Your task to perform on an android device: change keyboard looks Image 0: 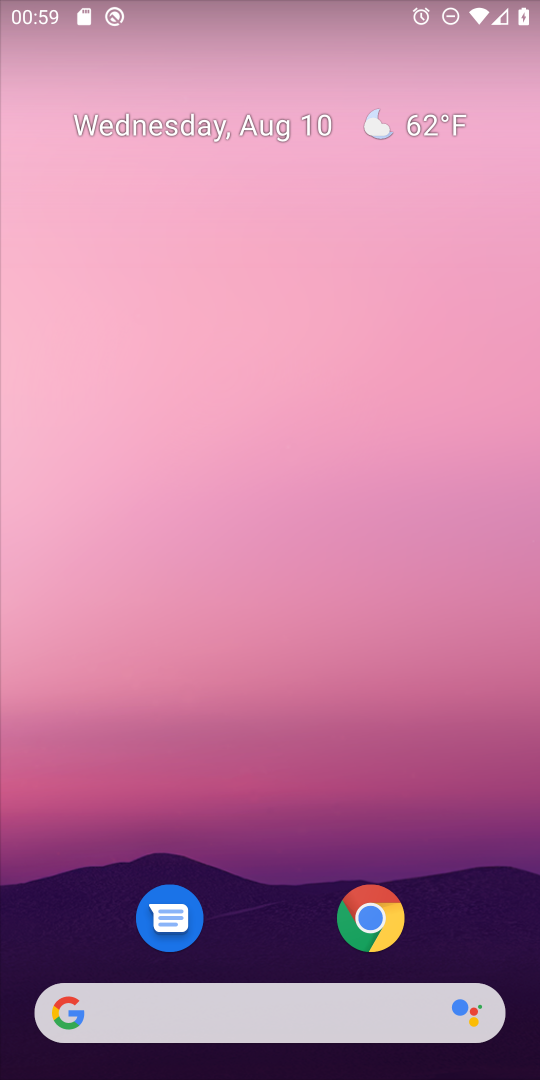
Step 0: drag from (253, 848) to (277, 211)
Your task to perform on an android device: change keyboard looks Image 1: 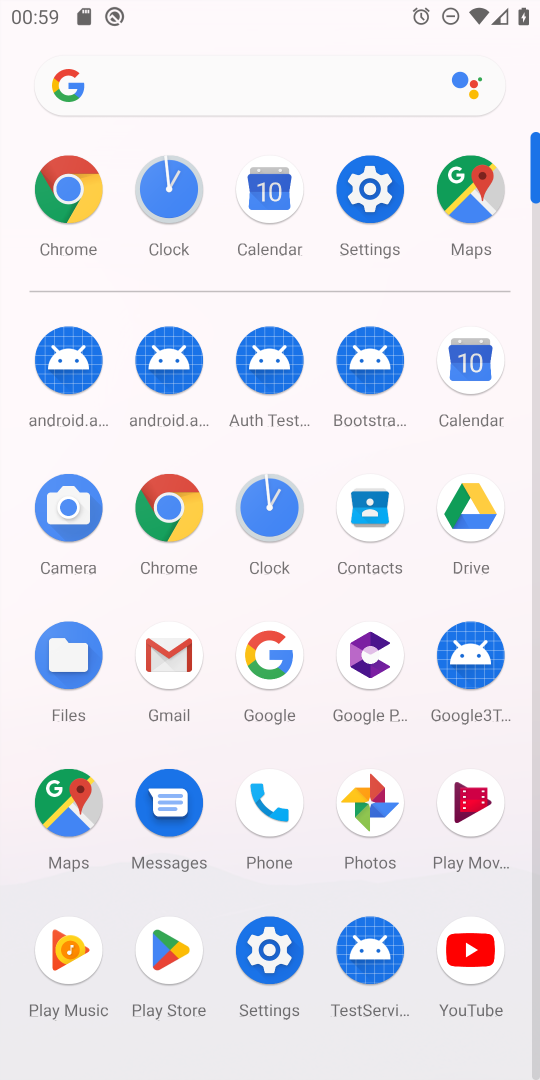
Step 1: click (267, 947)
Your task to perform on an android device: change keyboard looks Image 2: 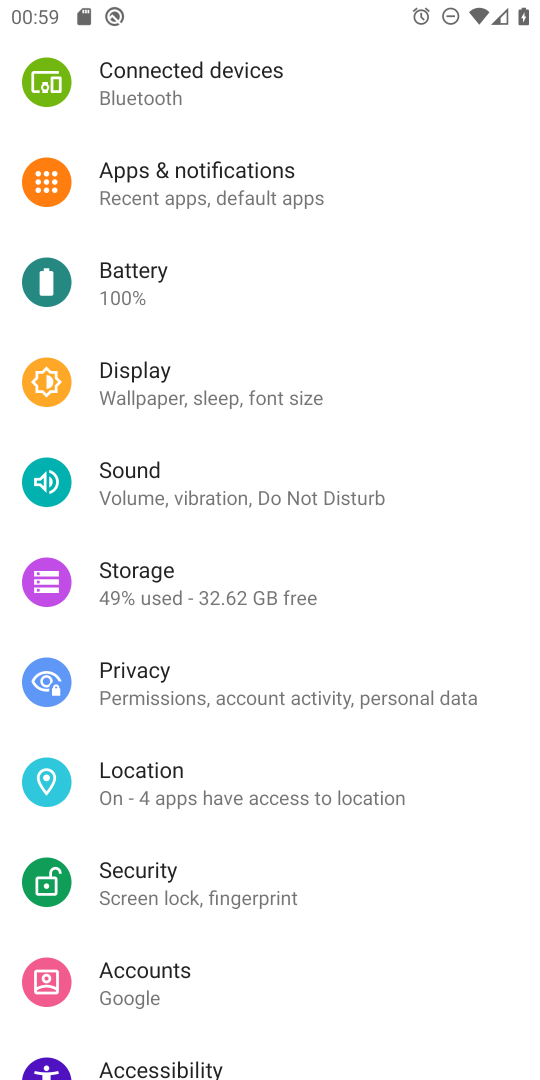
Step 2: drag from (267, 920) to (338, 240)
Your task to perform on an android device: change keyboard looks Image 3: 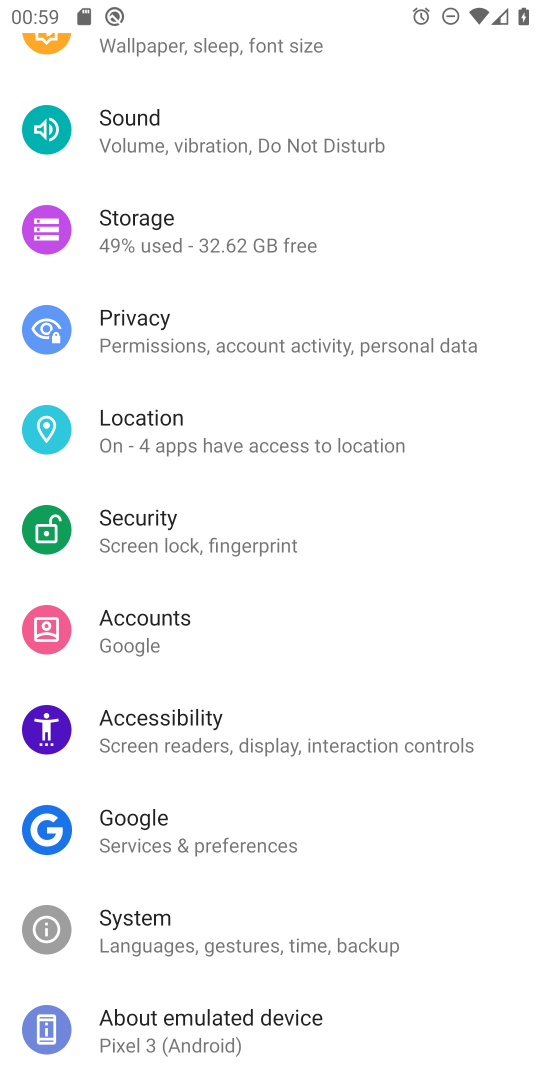
Step 3: click (303, 956)
Your task to perform on an android device: change keyboard looks Image 4: 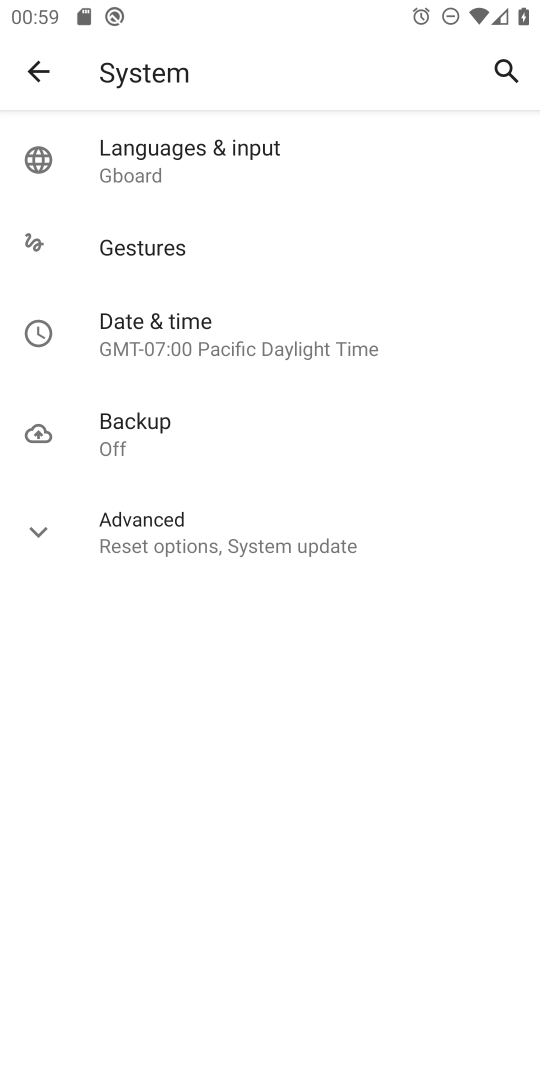
Step 4: click (194, 151)
Your task to perform on an android device: change keyboard looks Image 5: 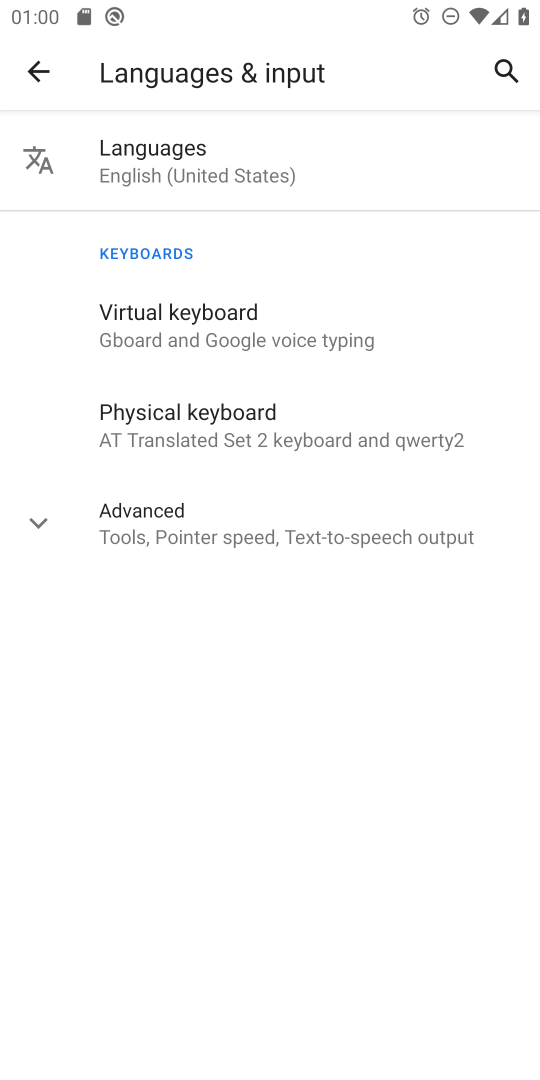
Step 5: click (160, 350)
Your task to perform on an android device: change keyboard looks Image 6: 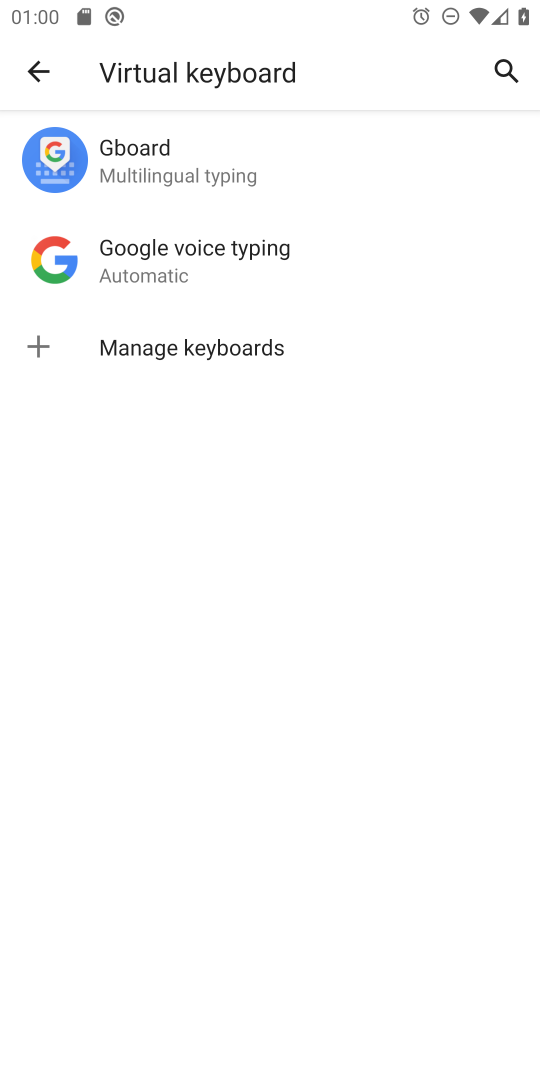
Step 6: click (149, 179)
Your task to perform on an android device: change keyboard looks Image 7: 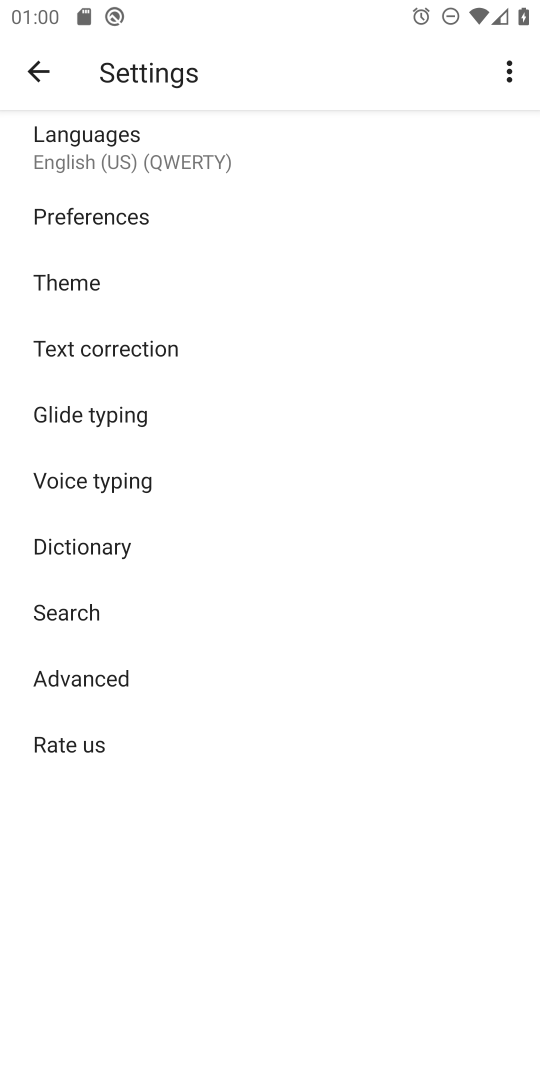
Step 7: click (93, 287)
Your task to perform on an android device: change keyboard looks Image 8: 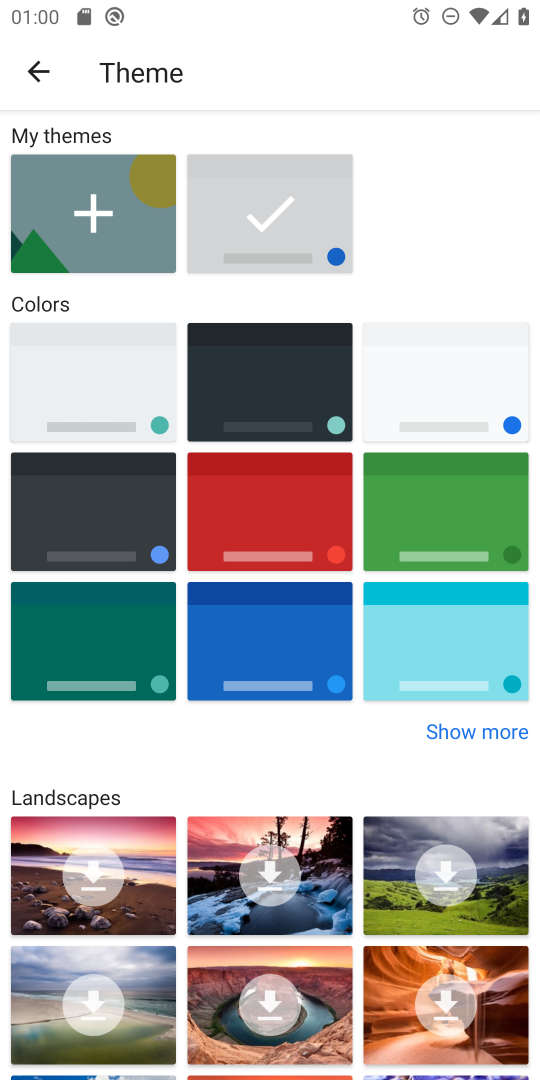
Step 8: click (56, 395)
Your task to perform on an android device: change keyboard looks Image 9: 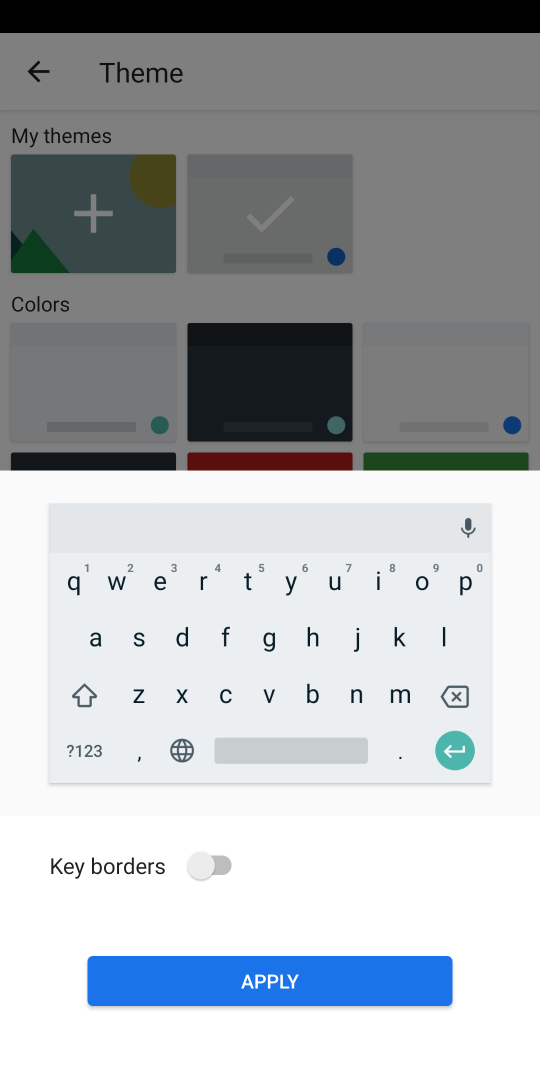
Step 9: click (273, 977)
Your task to perform on an android device: change keyboard looks Image 10: 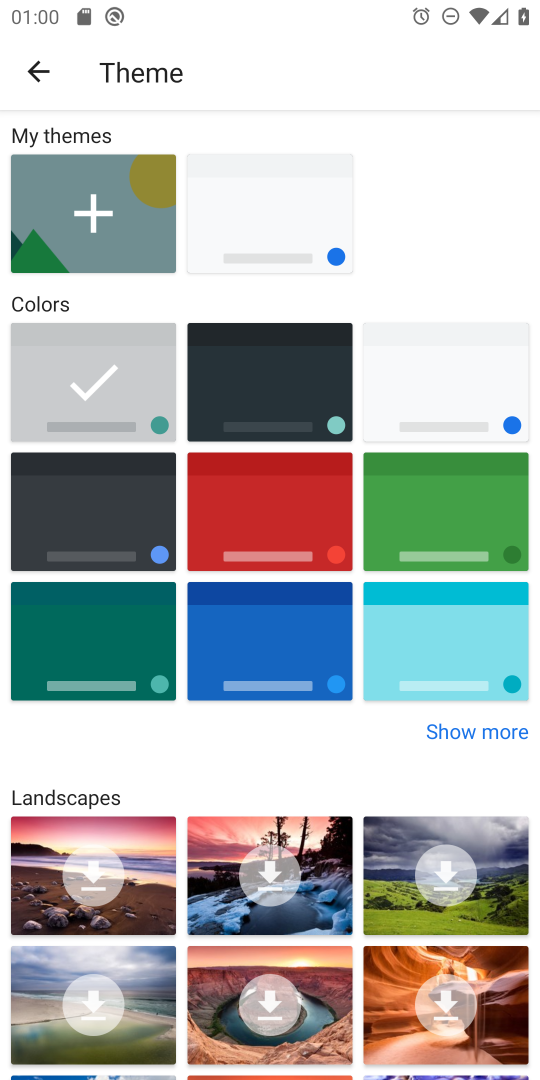
Step 10: task complete